Your task to perform on an android device: See recent photos Image 0: 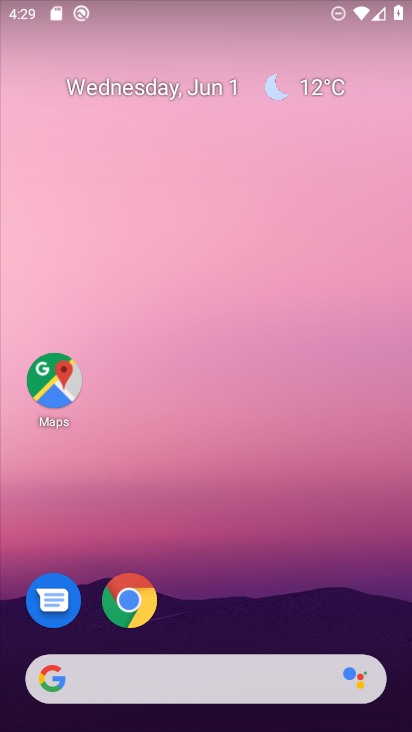
Step 0: drag from (384, 623) to (308, 176)
Your task to perform on an android device: See recent photos Image 1: 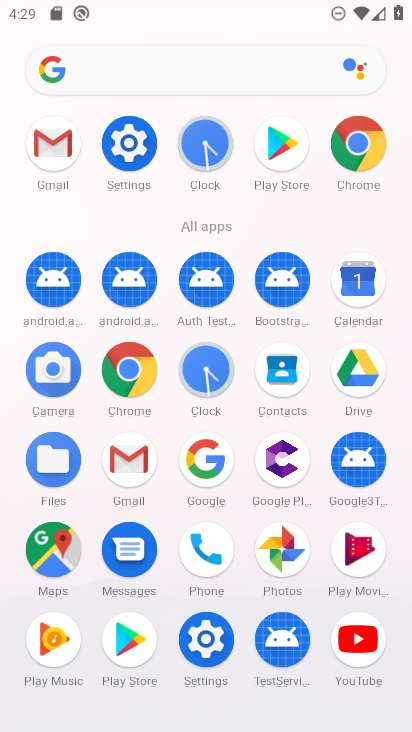
Step 1: click (284, 552)
Your task to perform on an android device: See recent photos Image 2: 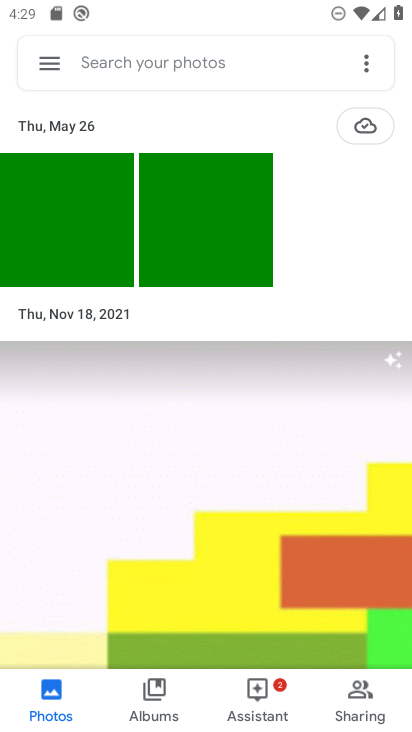
Step 2: task complete